Your task to perform on an android device: Open settings Image 0: 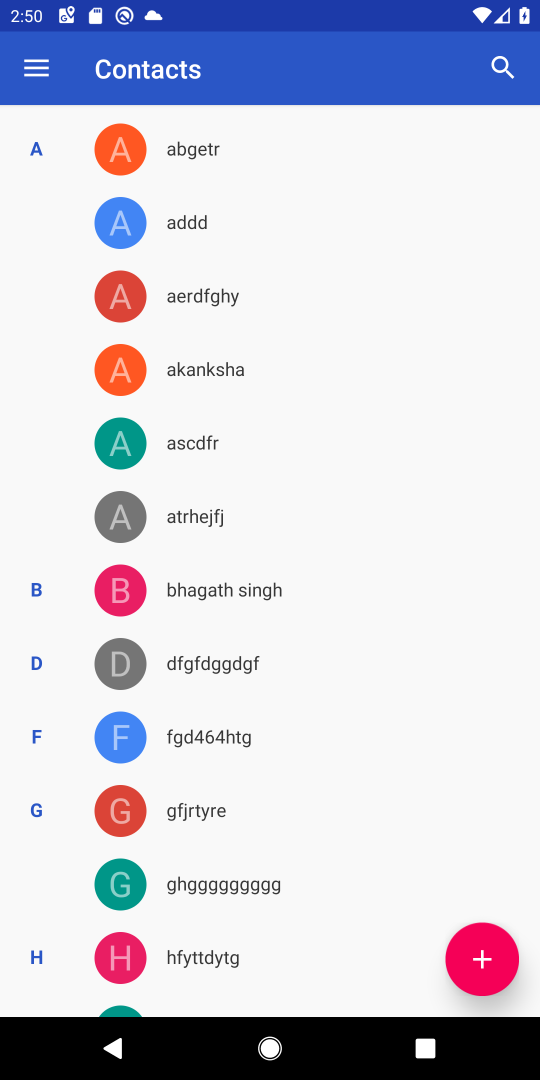
Step 0: press home button
Your task to perform on an android device: Open settings Image 1: 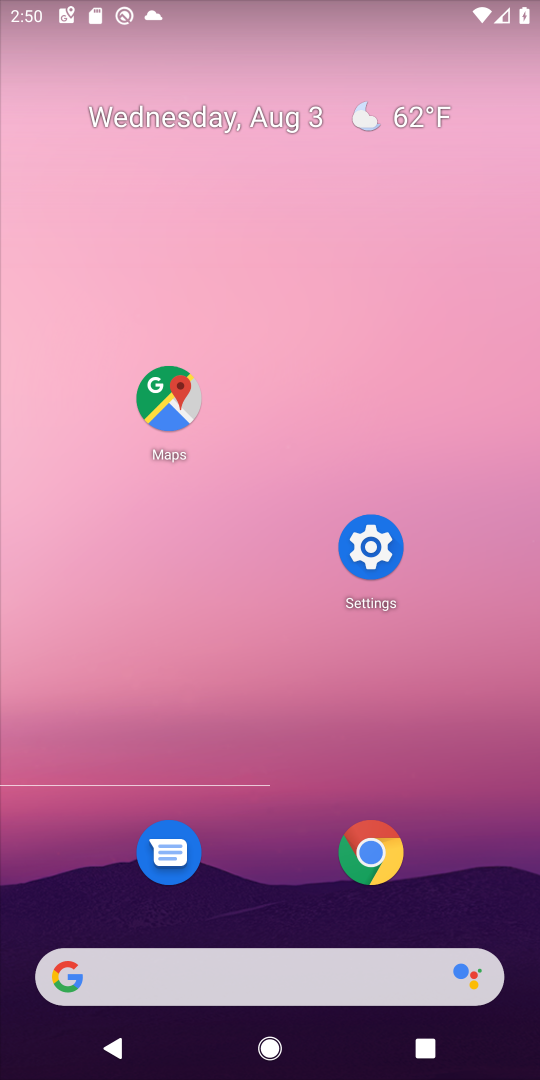
Step 1: click (372, 540)
Your task to perform on an android device: Open settings Image 2: 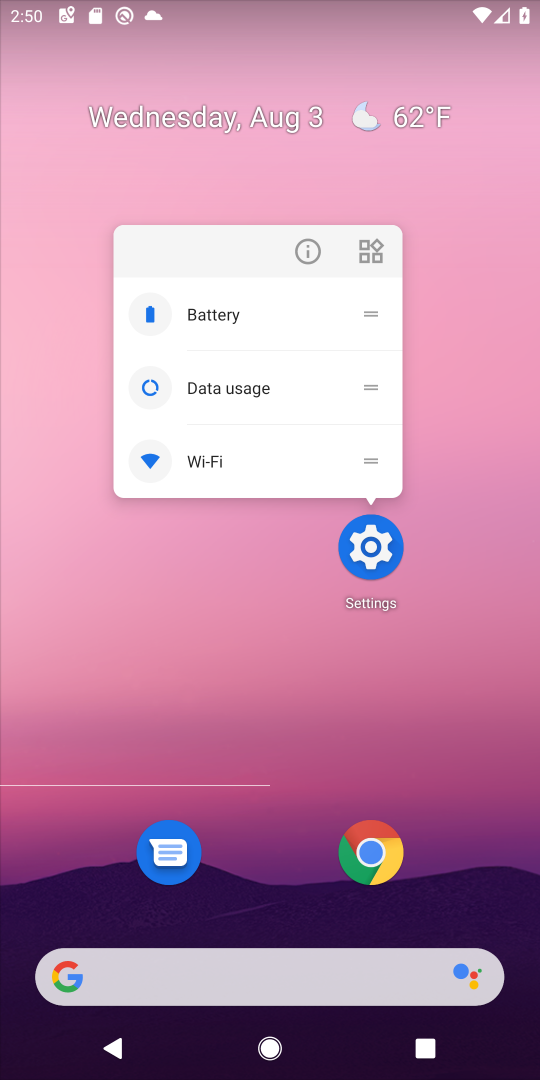
Step 2: click (363, 553)
Your task to perform on an android device: Open settings Image 3: 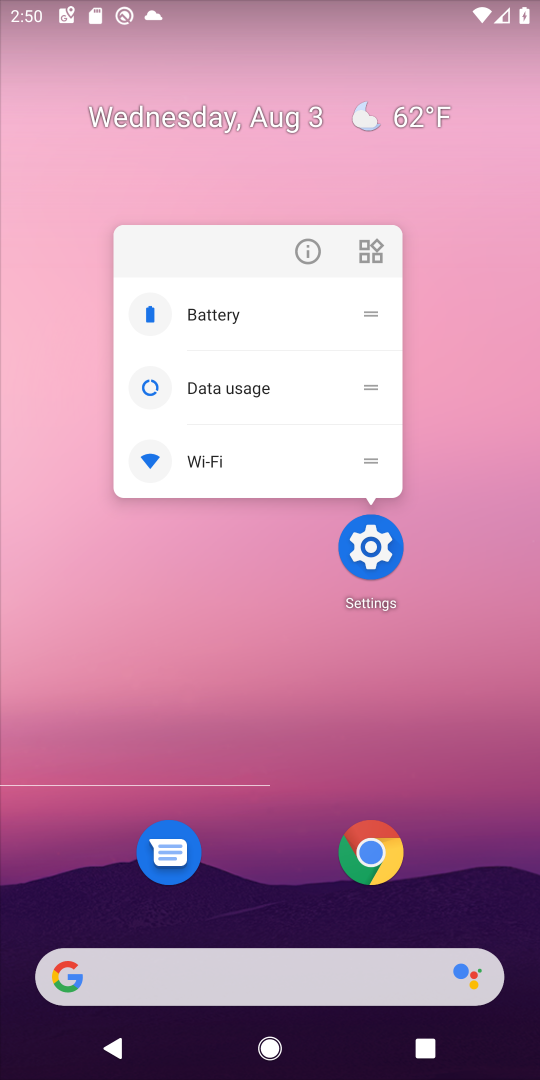
Step 3: click (363, 553)
Your task to perform on an android device: Open settings Image 4: 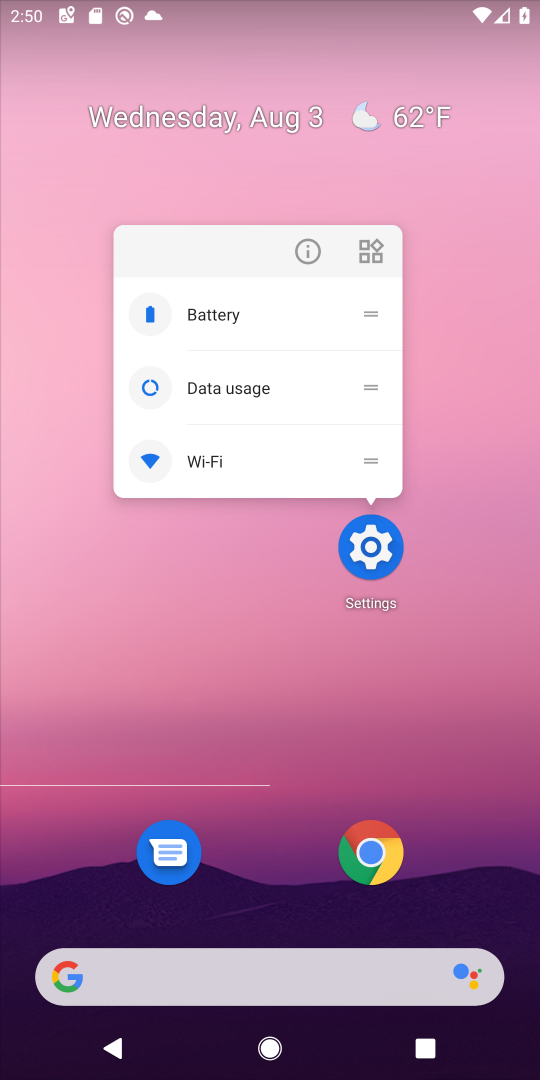
Step 4: click (370, 545)
Your task to perform on an android device: Open settings Image 5: 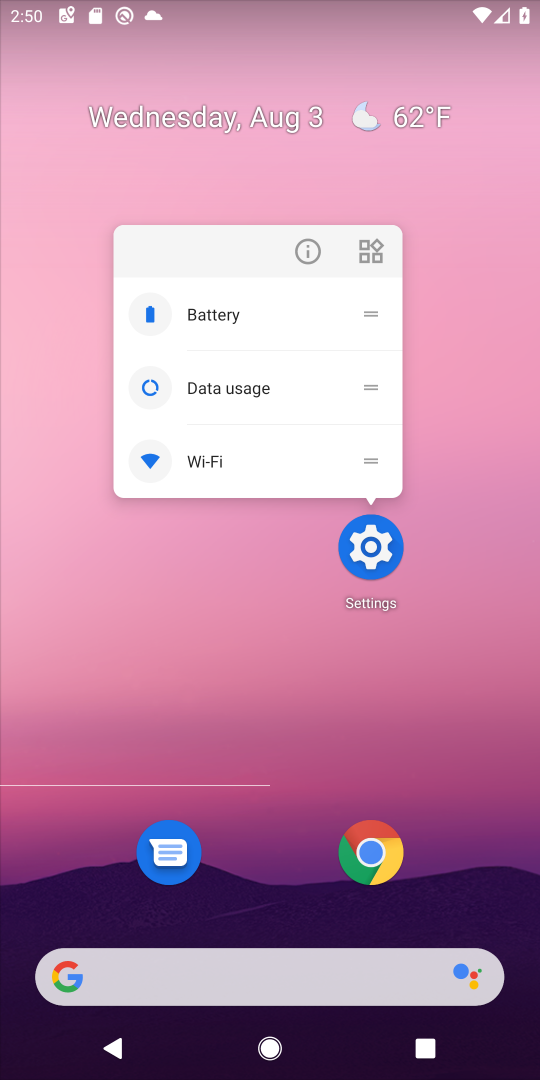
Step 5: click (370, 546)
Your task to perform on an android device: Open settings Image 6: 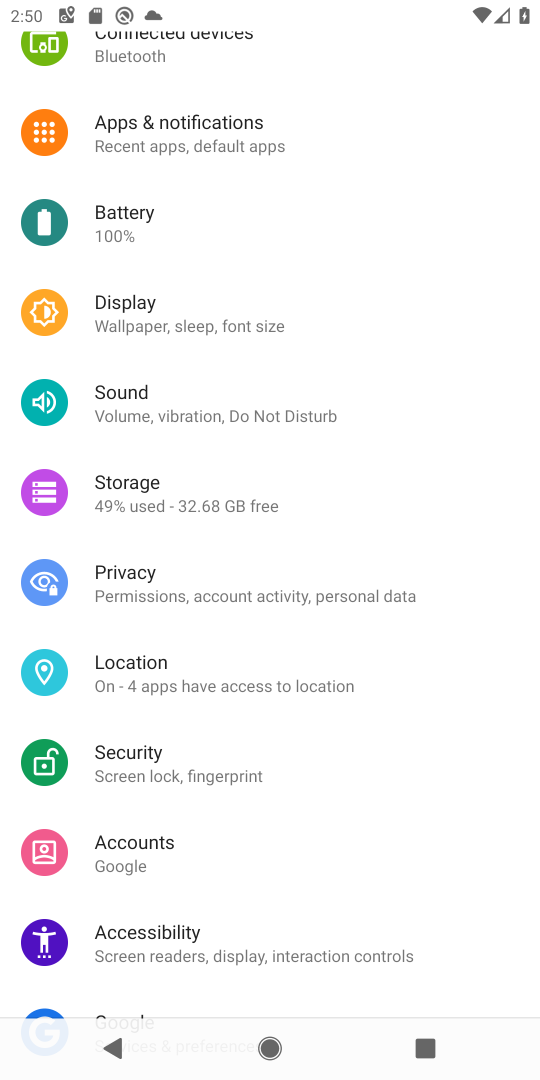
Step 6: task complete